Your task to perform on an android device: Show me popular games on the Play Store Image 0: 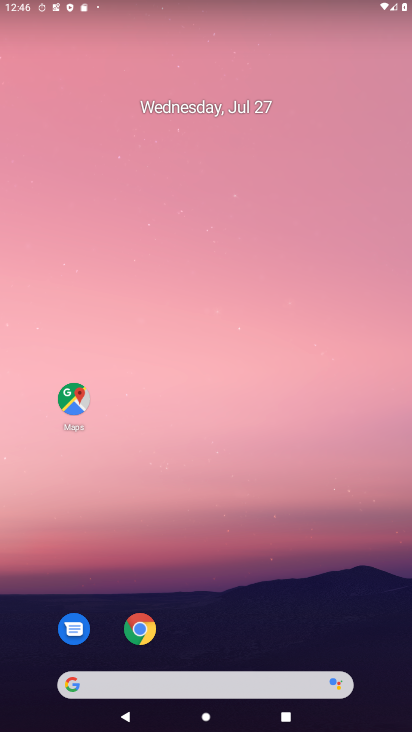
Step 0: drag from (368, 653) to (206, 40)
Your task to perform on an android device: Show me popular games on the Play Store Image 1: 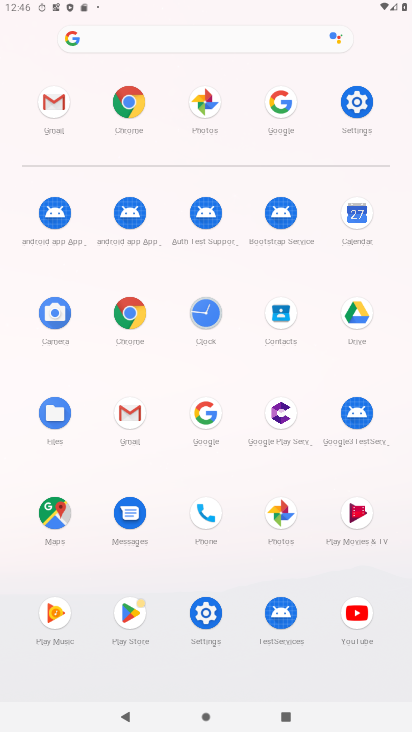
Step 1: click (131, 620)
Your task to perform on an android device: Show me popular games on the Play Store Image 2: 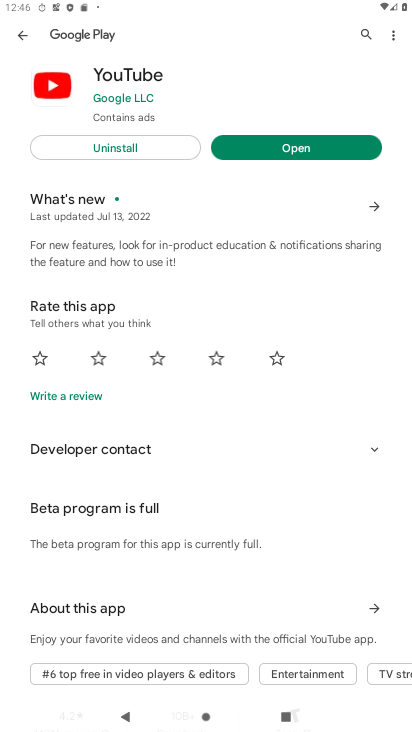
Step 2: press back button
Your task to perform on an android device: Show me popular games on the Play Store Image 3: 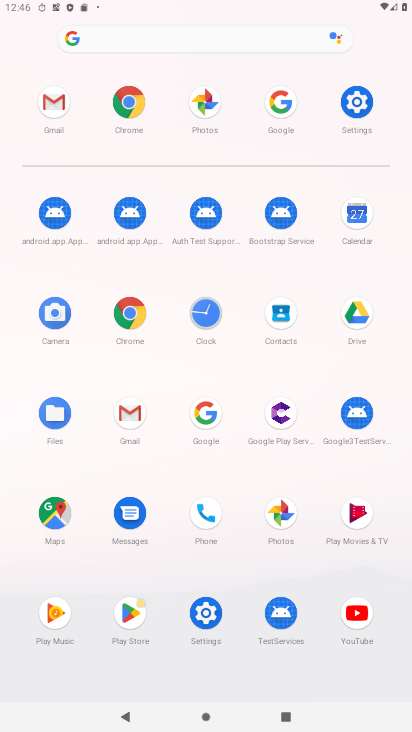
Step 3: click (140, 614)
Your task to perform on an android device: Show me popular games on the Play Store Image 4: 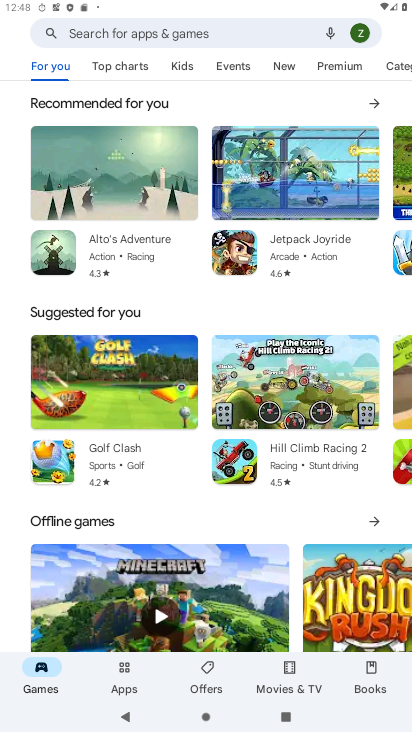
Step 4: type "popular games"
Your task to perform on an android device: Show me popular games on the Play Store Image 5: 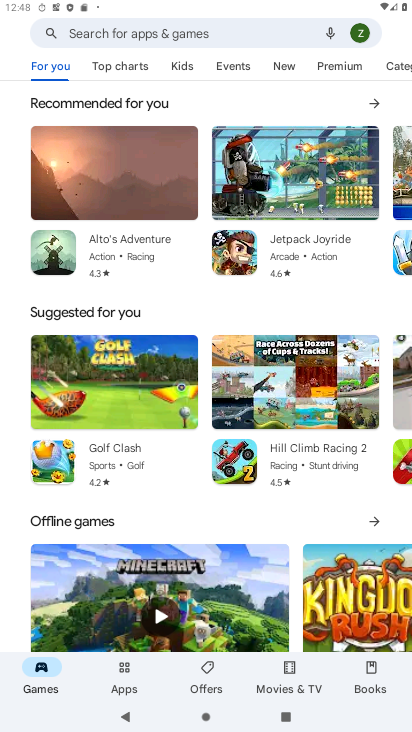
Step 5: click (143, 27)
Your task to perform on an android device: Show me popular games on the Play Store Image 6: 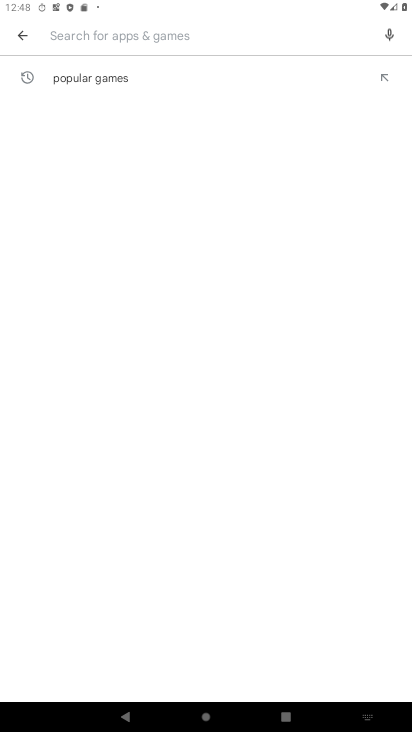
Step 6: click (92, 72)
Your task to perform on an android device: Show me popular games on the Play Store Image 7: 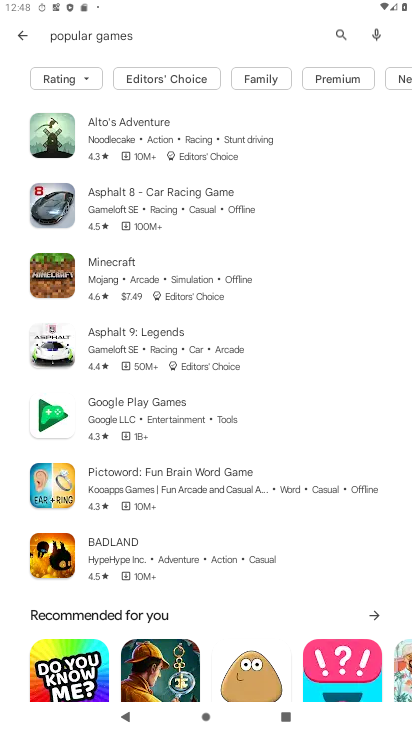
Step 7: task complete